Your task to perform on an android device: Open network settings Image 0: 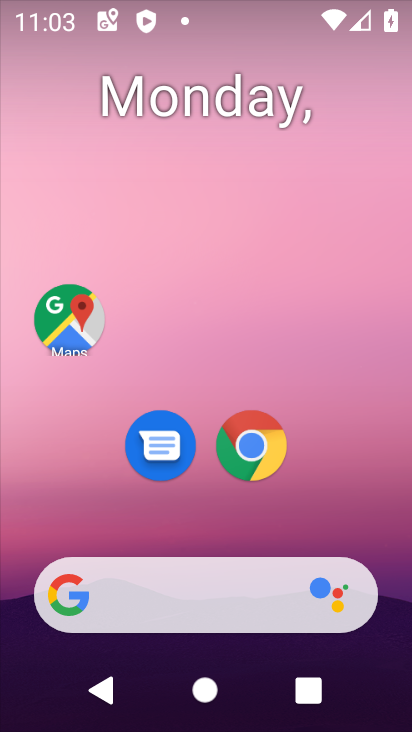
Step 0: drag from (199, 541) to (263, 63)
Your task to perform on an android device: Open network settings Image 1: 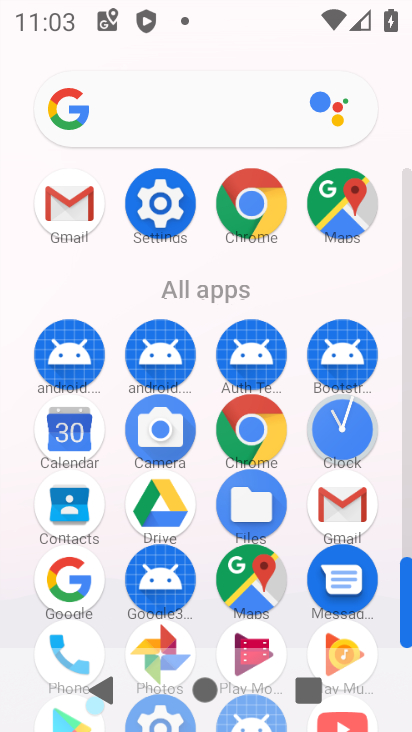
Step 1: click (157, 190)
Your task to perform on an android device: Open network settings Image 2: 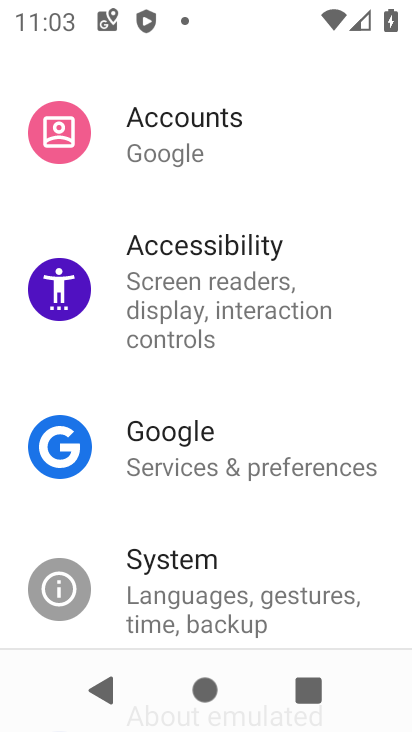
Step 2: drag from (190, 206) to (270, 661)
Your task to perform on an android device: Open network settings Image 3: 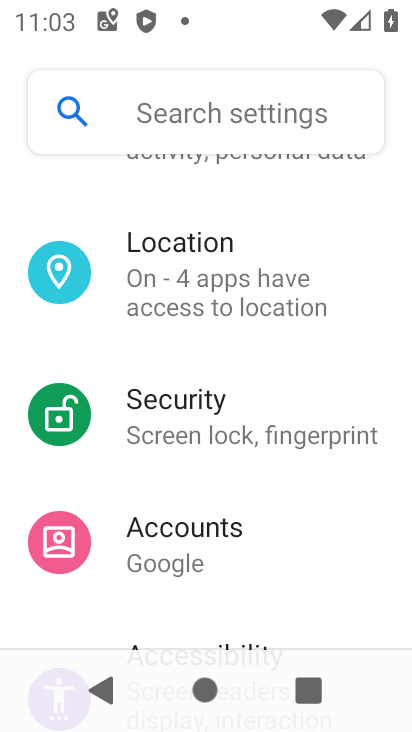
Step 3: drag from (246, 256) to (179, 676)
Your task to perform on an android device: Open network settings Image 4: 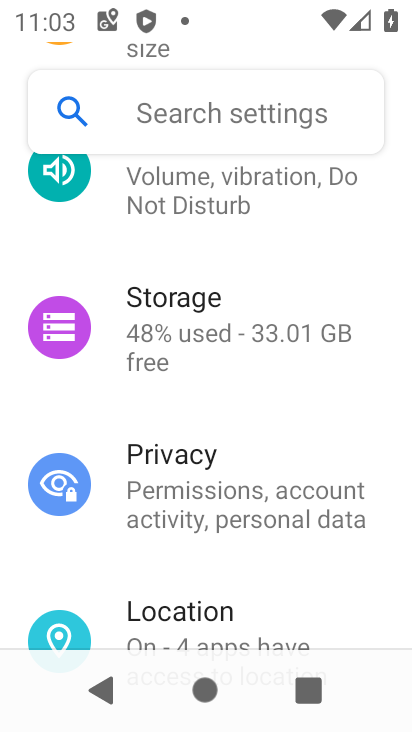
Step 4: drag from (159, 215) to (153, 666)
Your task to perform on an android device: Open network settings Image 5: 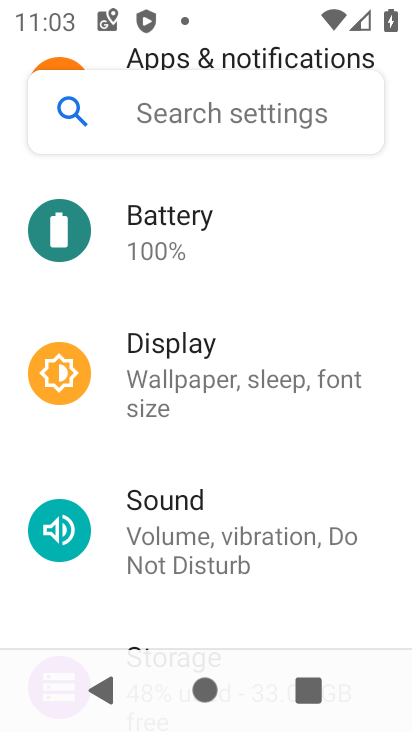
Step 5: drag from (186, 205) to (177, 656)
Your task to perform on an android device: Open network settings Image 6: 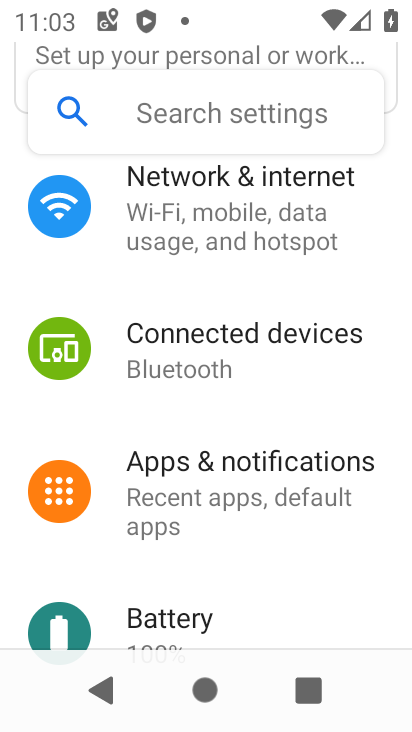
Step 6: drag from (250, 253) to (195, 576)
Your task to perform on an android device: Open network settings Image 7: 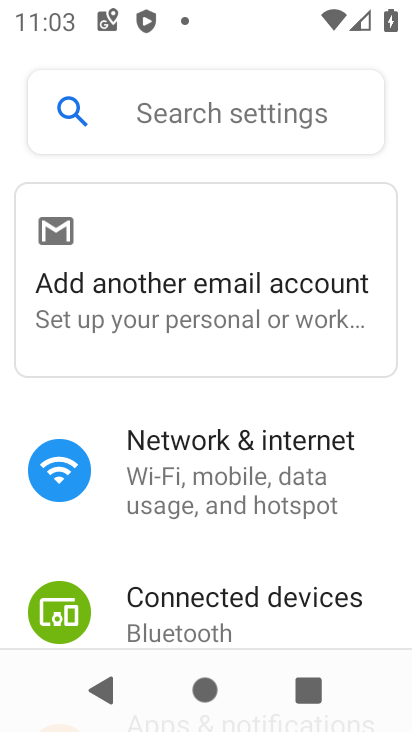
Step 7: click (224, 461)
Your task to perform on an android device: Open network settings Image 8: 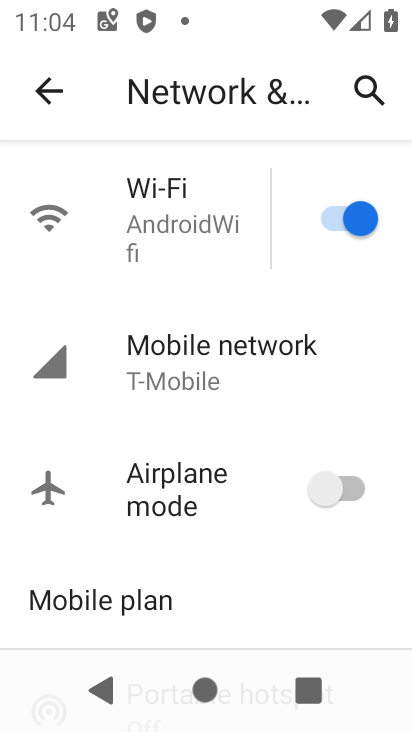
Step 8: task complete